Your task to perform on an android device: Go to battery settings Image 0: 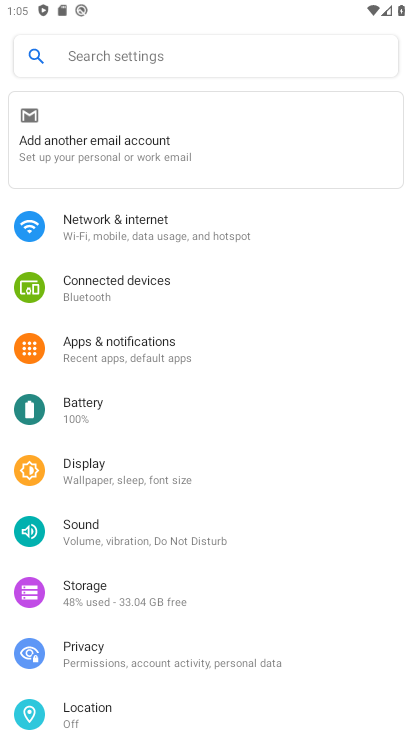
Step 0: click (91, 415)
Your task to perform on an android device: Go to battery settings Image 1: 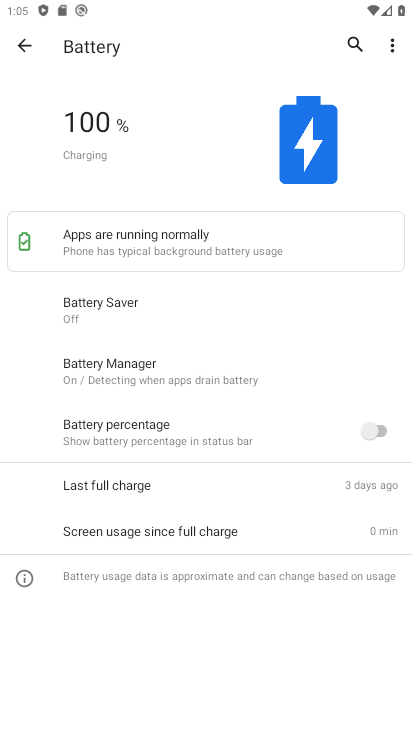
Step 1: task complete